Your task to perform on an android device: See recent photos Image 0: 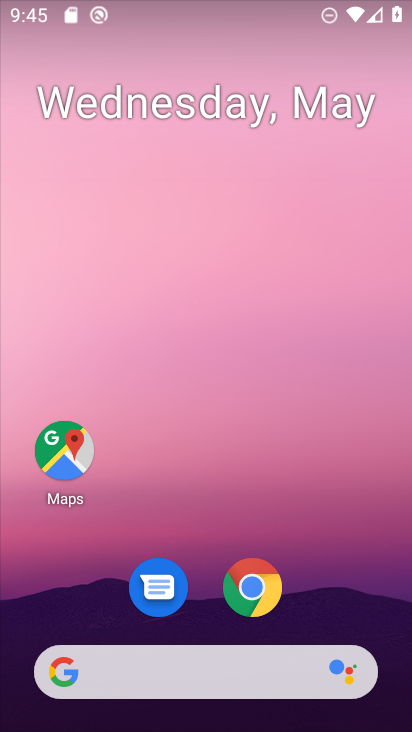
Step 0: drag from (215, 723) to (212, 251)
Your task to perform on an android device: See recent photos Image 1: 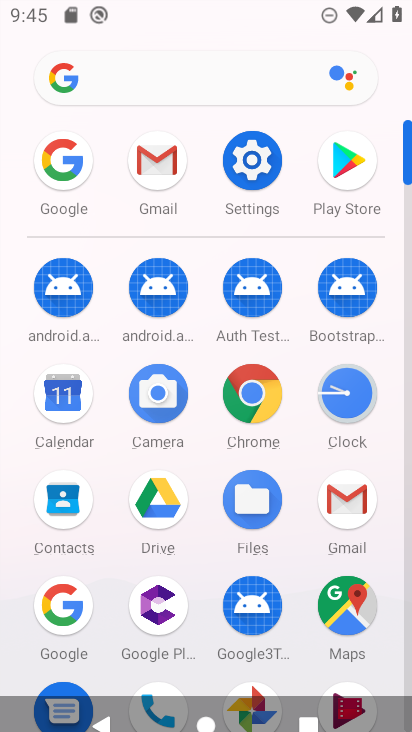
Step 1: drag from (308, 623) to (302, 320)
Your task to perform on an android device: See recent photos Image 2: 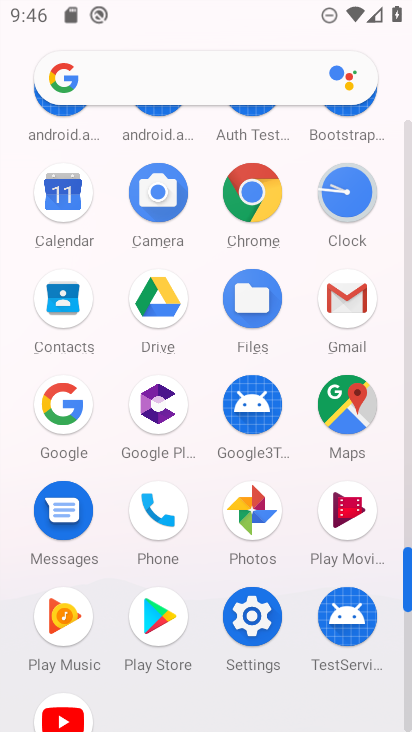
Step 2: click (254, 510)
Your task to perform on an android device: See recent photos Image 3: 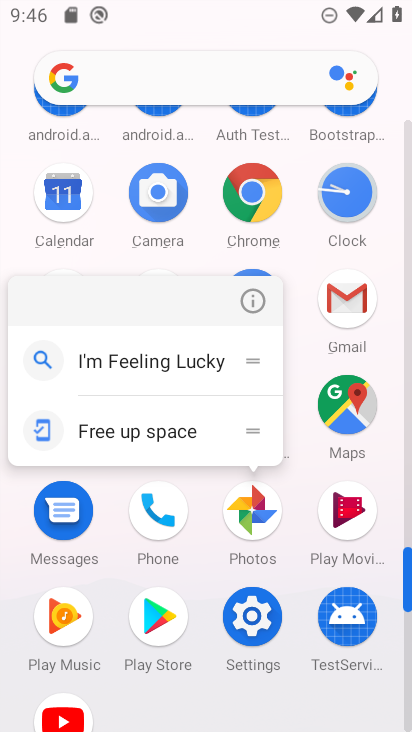
Step 3: click (257, 508)
Your task to perform on an android device: See recent photos Image 4: 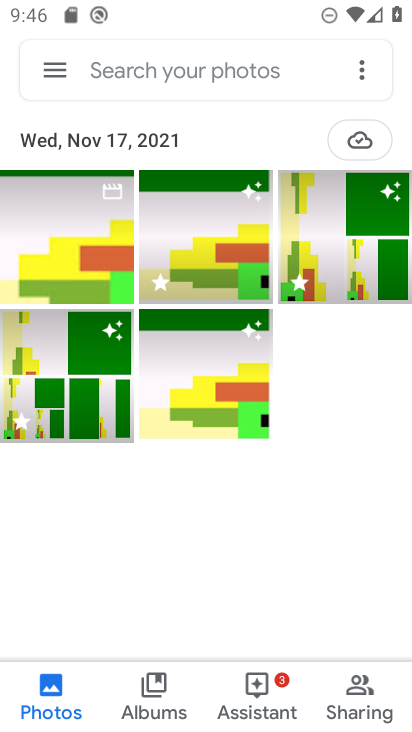
Step 4: click (81, 252)
Your task to perform on an android device: See recent photos Image 5: 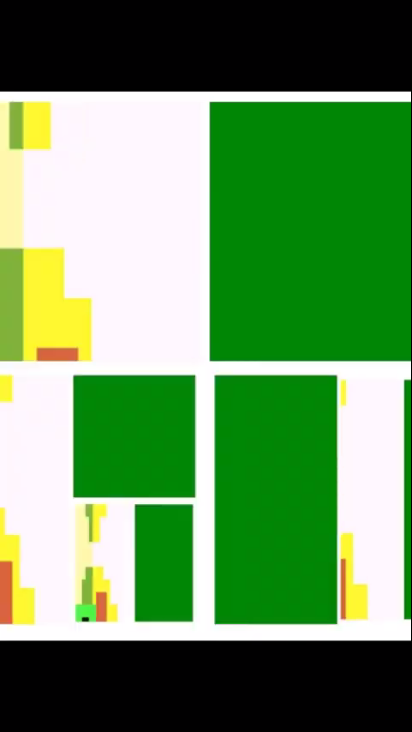
Step 5: task complete